Your task to perform on an android device: Open wifi settings Image 0: 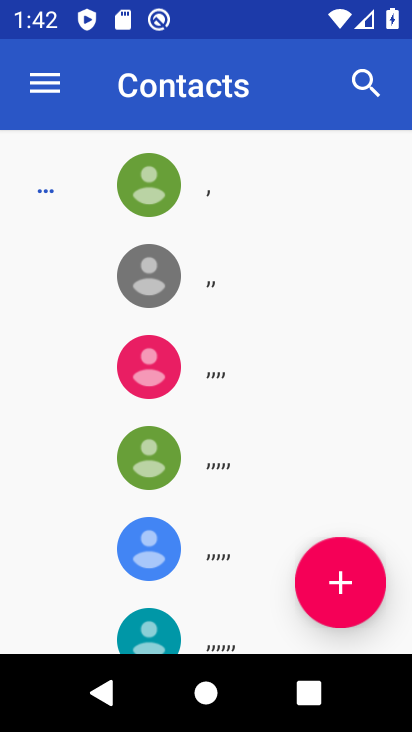
Step 0: press home button
Your task to perform on an android device: Open wifi settings Image 1: 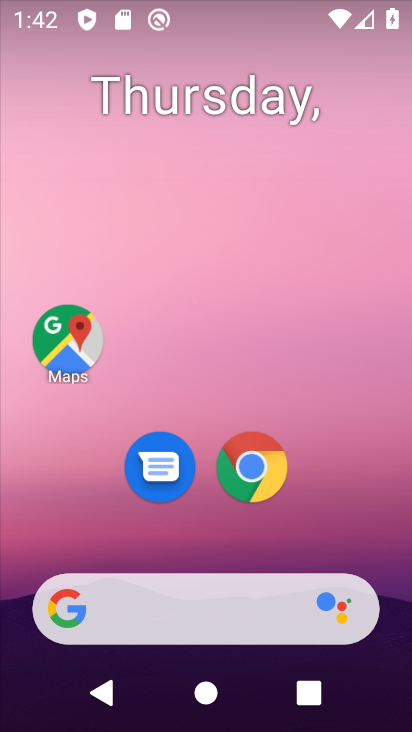
Step 1: drag from (267, 9) to (215, 498)
Your task to perform on an android device: Open wifi settings Image 2: 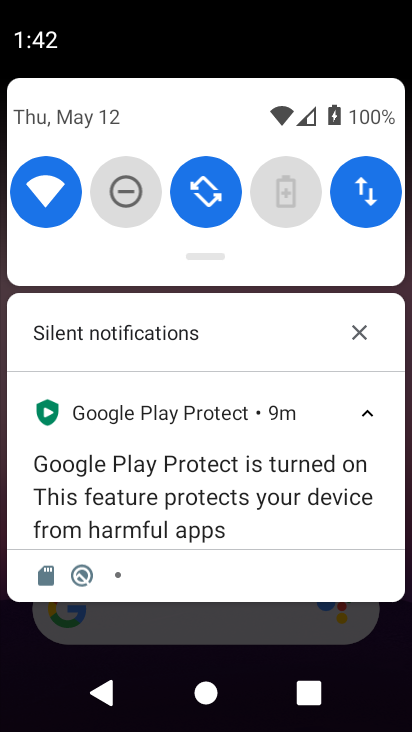
Step 2: click (54, 203)
Your task to perform on an android device: Open wifi settings Image 3: 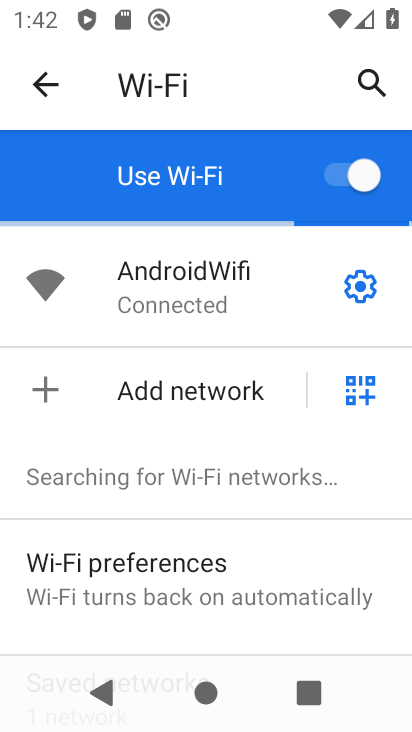
Step 3: task complete